Your task to perform on an android device: Show me popular games on the Play Store Image 0: 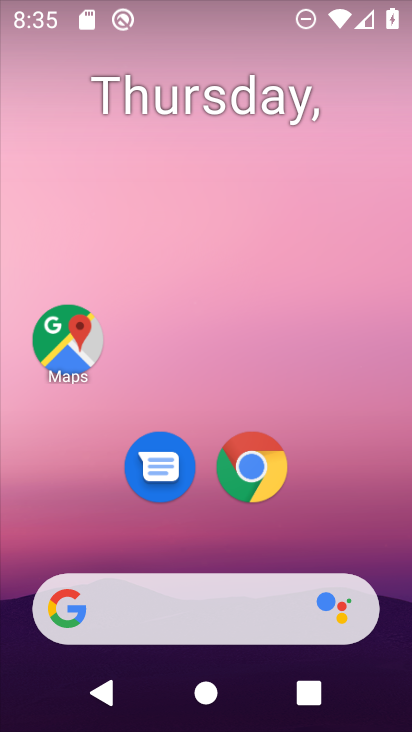
Step 0: drag from (349, 491) to (294, 104)
Your task to perform on an android device: Show me popular games on the Play Store Image 1: 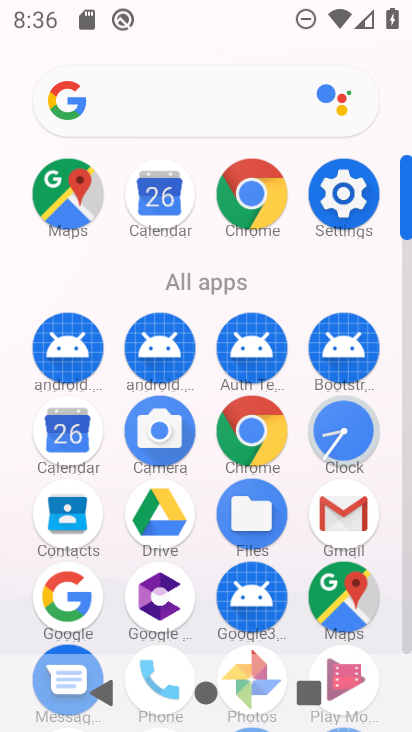
Step 1: drag from (209, 617) to (151, 197)
Your task to perform on an android device: Show me popular games on the Play Store Image 2: 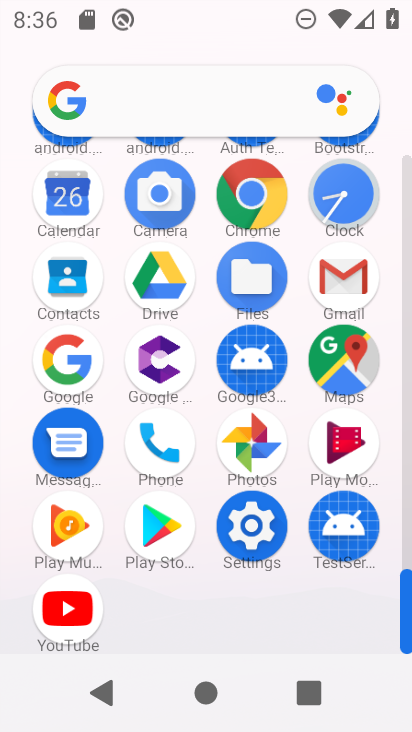
Step 2: click (156, 544)
Your task to perform on an android device: Show me popular games on the Play Store Image 3: 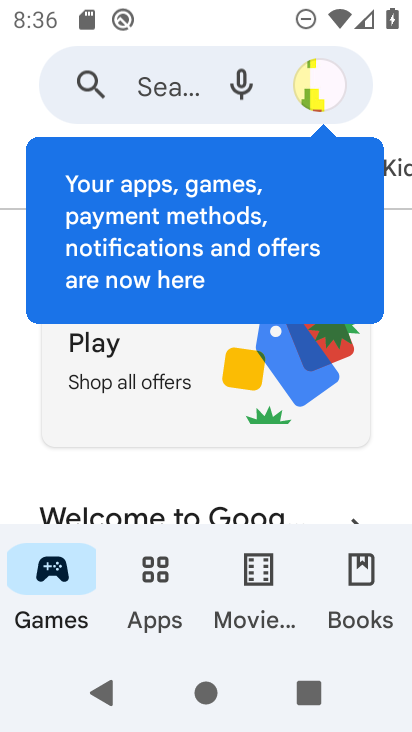
Step 3: click (160, 430)
Your task to perform on an android device: Show me popular games on the Play Store Image 4: 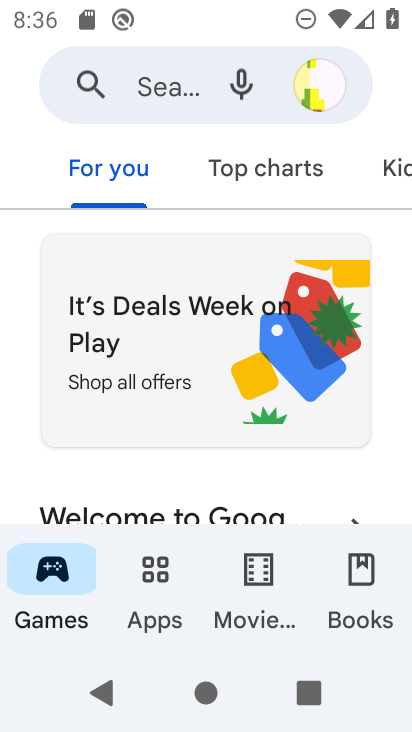
Step 4: task complete